Your task to perform on an android device: turn off translation in the chrome app Image 0: 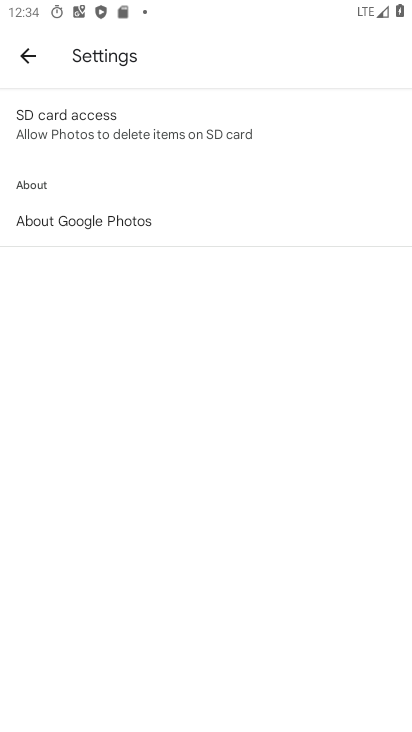
Step 0: press home button
Your task to perform on an android device: turn off translation in the chrome app Image 1: 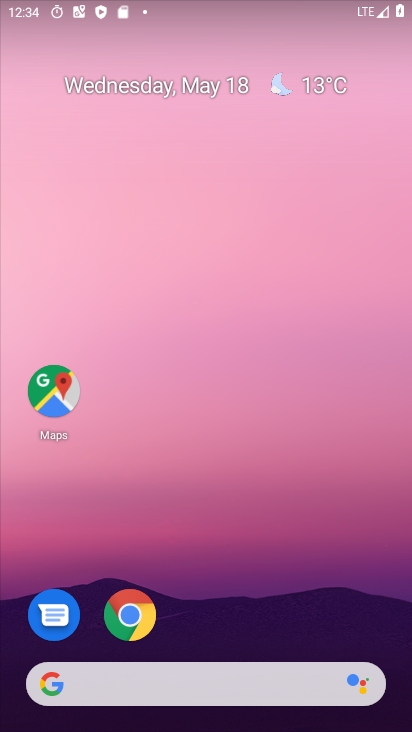
Step 1: click (127, 630)
Your task to perform on an android device: turn off translation in the chrome app Image 2: 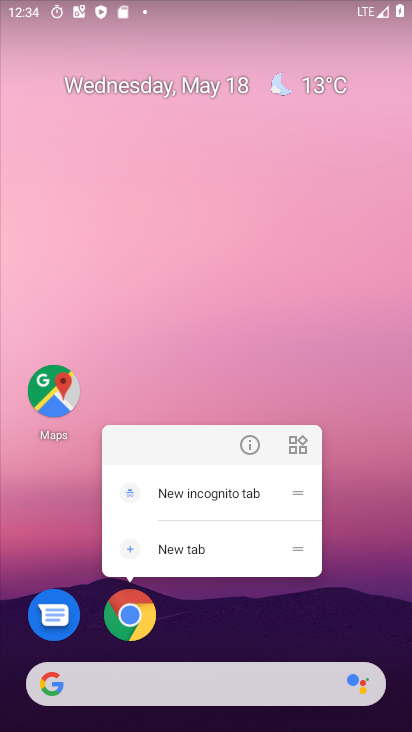
Step 2: click (135, 609)
Your task to perform on an android device: turn off translation in the chrome app Image 3: 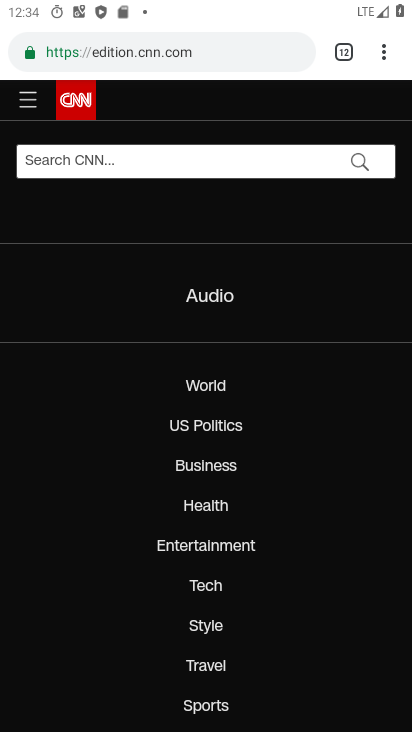
Step 3: drag from (382, 54) to (244, 633)
Your task to perform on an android device: turn off translation in the chrome app Image 4: 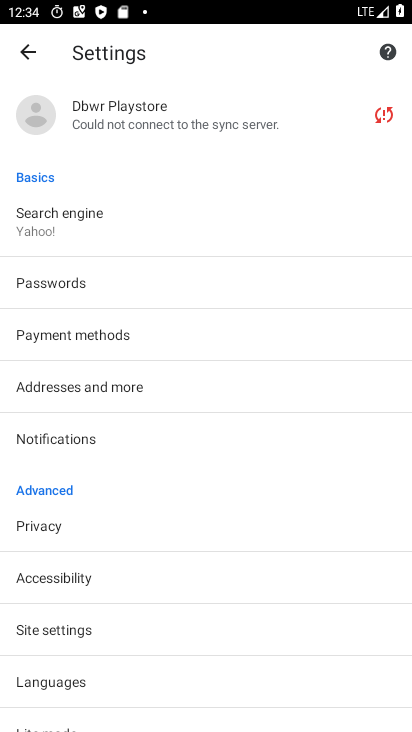
Step 4: drag from (195, 666) to (252, 252)
Your task to perform on an android device: turn off translation in the chrome app Image 5: 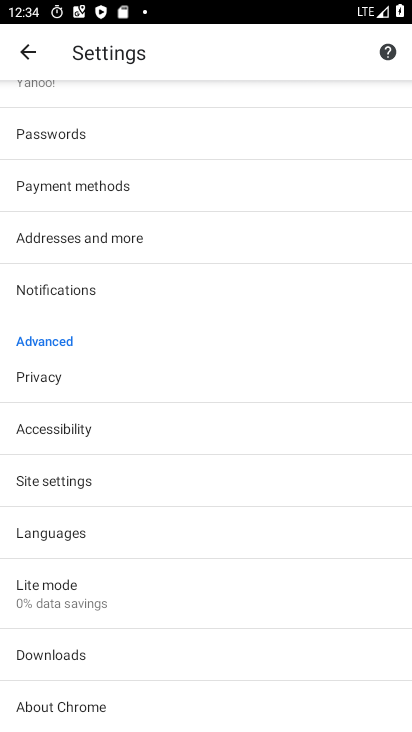
Step 5: click (88, 536)
Your task to perform on an android device: turn off translation in the chrome app Image 6: 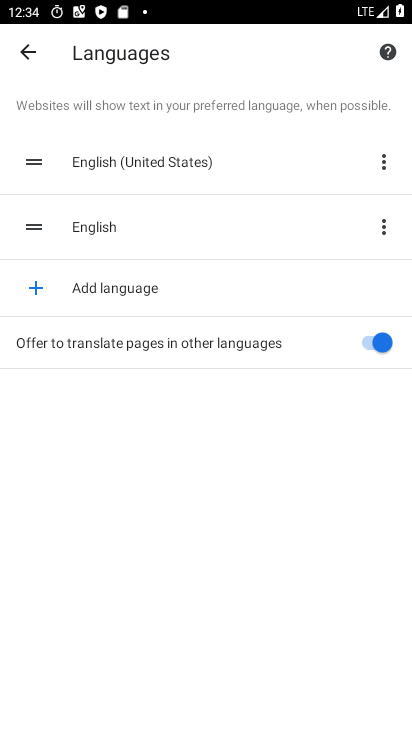
Step 6: click (369, 341)
Your task to perform on an android device: turn off translation in the chrome app Image 7: 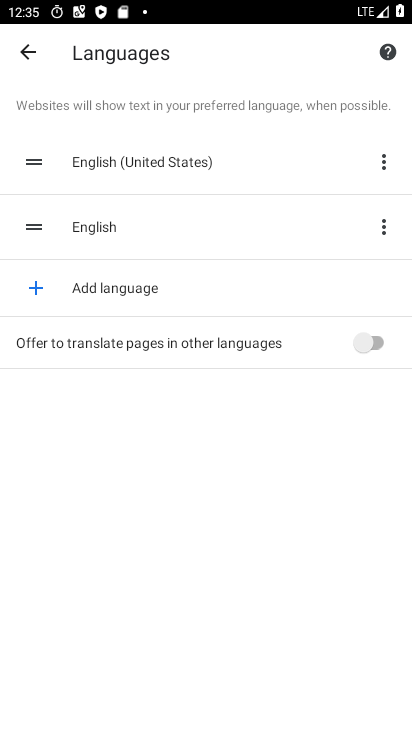
Step 7: task complete